Your task to perform on an android device: clear history in the chrome app Image 0: 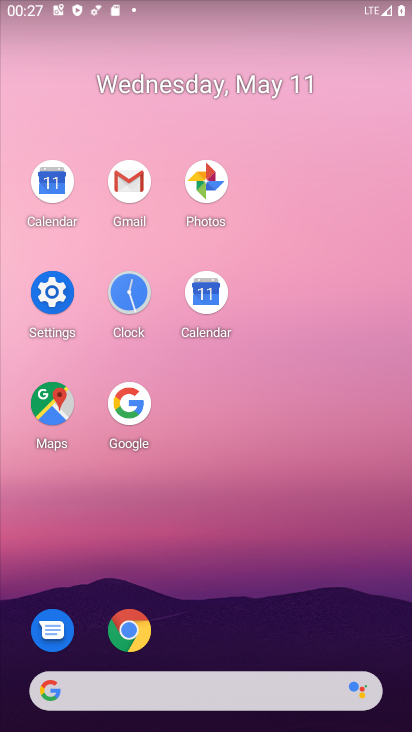
Step 0: click (132, 614)
Your task to perform on an android device: clear history in the chrome app Image 1: 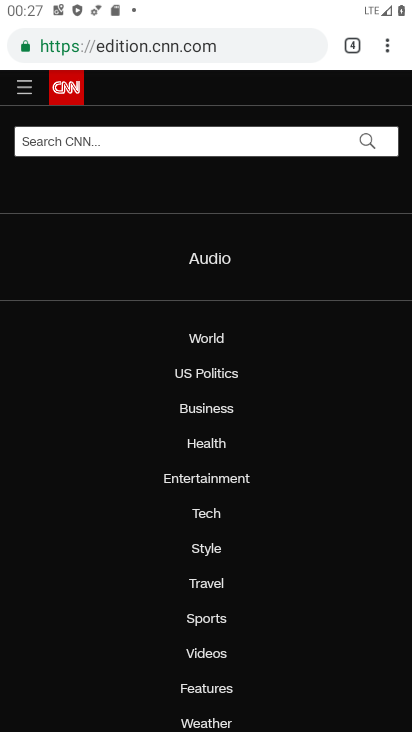
Step 1: click (385, 46)
Your task to perform on an android device: clear history in the chrome app Image 2: 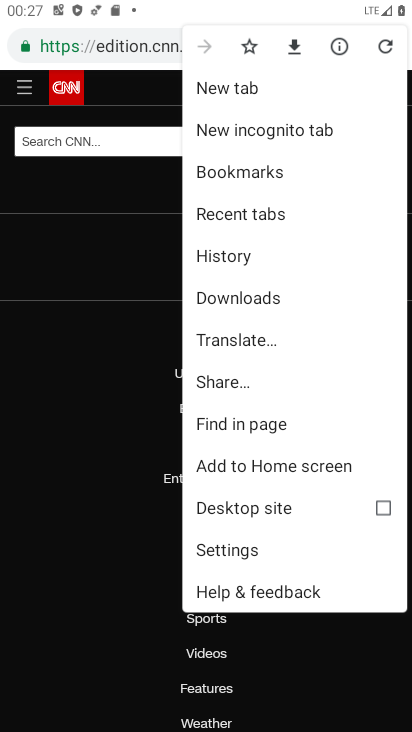
Step 2: click (257, 554)
Your task to perform on an android device: clear history in the chrome app Image 3: 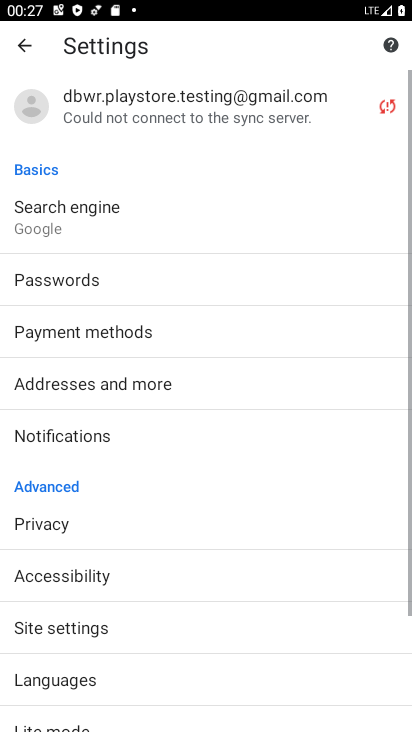
Step 3: drag from (257, 554) to (262, 187)
Your task to perform on an android device: clear history in the chrome app Image 4: 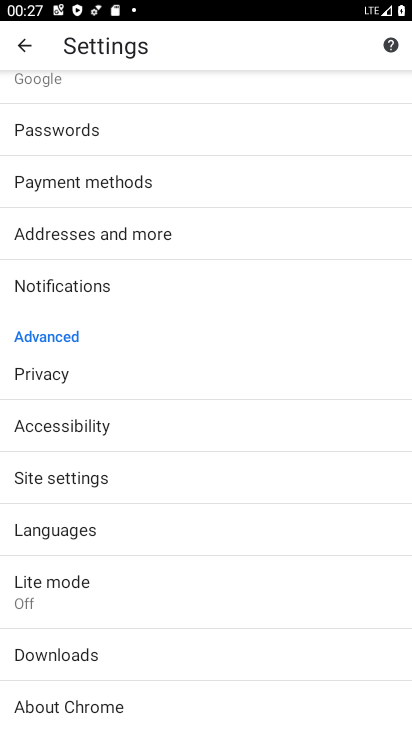
Step 4: click (123, 380)
Your task to perform on an android device: clear history in the chrome app Image 5: 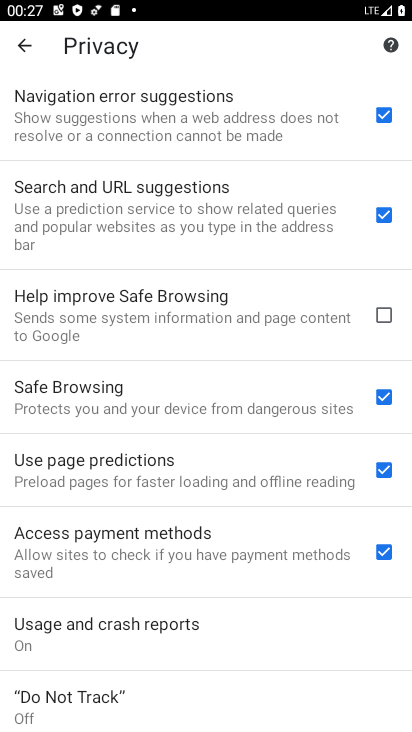
Step 5: drag from (190, 649) to (239, 141)
Your task to perform on an android device: clear history in the chrome app Image 6: 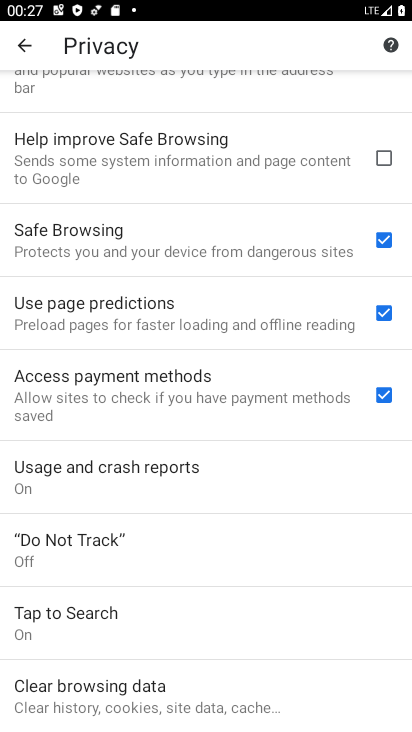
Step 6: click (196, 704)
Your task to perform on an android device: clear history in the chrome app Image 7: 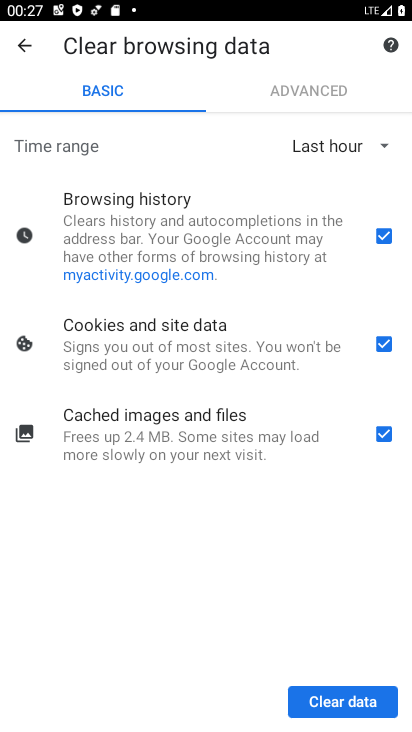
Step 7: click (318, 697)
Your task to perform on an android device: clear history in the chrome app Image 8: 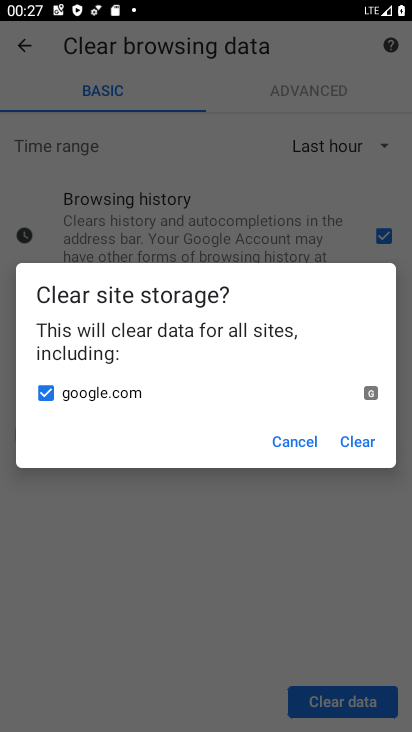
Step 8: click (355, 449)
Your task to perform on an android device: clear history in the chrome app Image 9: 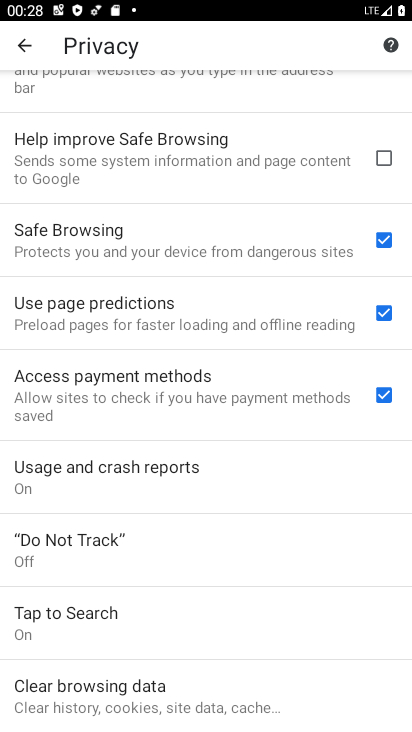
Step 9: task complete